Your task to perform on an android device: What's the weather going to be this weekend? Image 0: 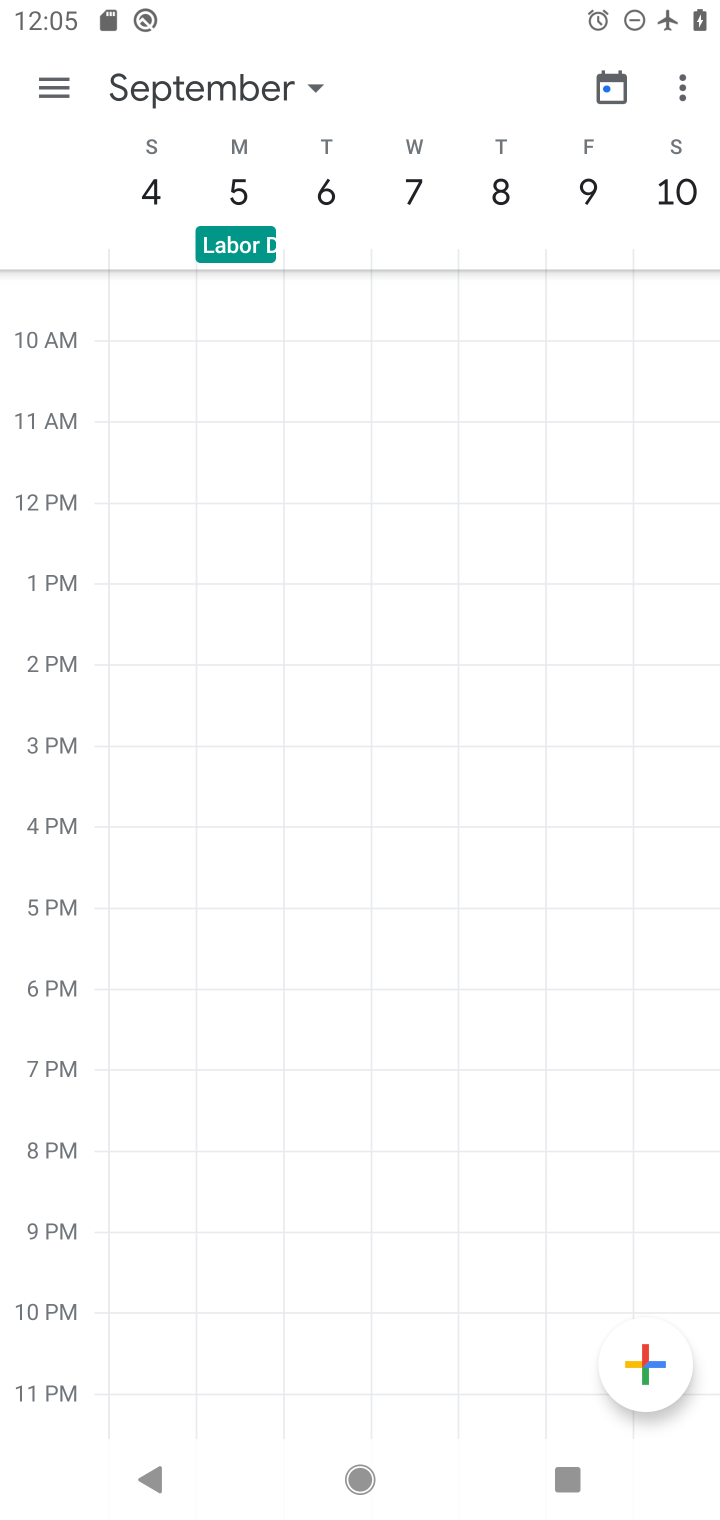
Step 0: press home button
Your task to perform on an android device: What's the weather going to be this weekend? Image 1: 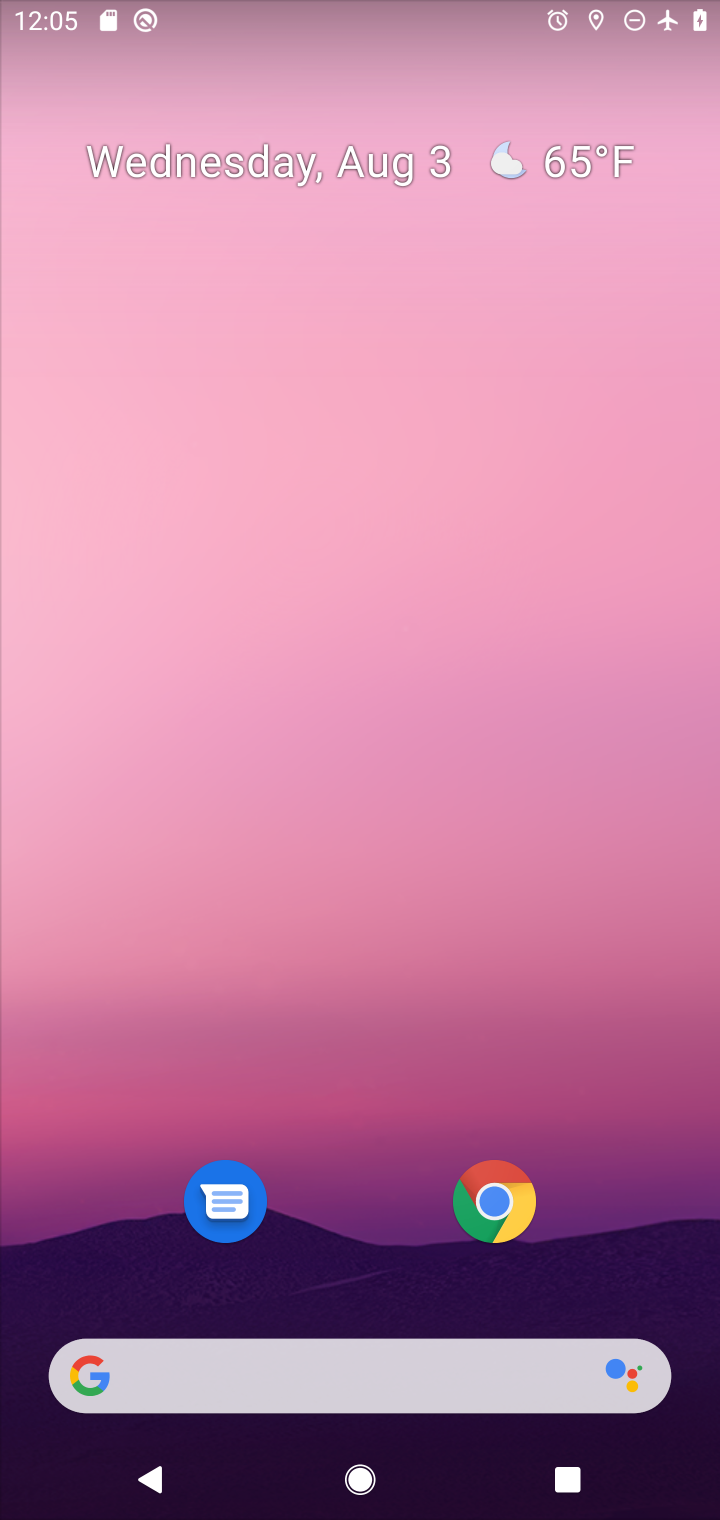
Step 1: drag from (366, 1334) to (351, 3)
Your task to perform on an android device: What's the weather going to be this weekend? Image 2: 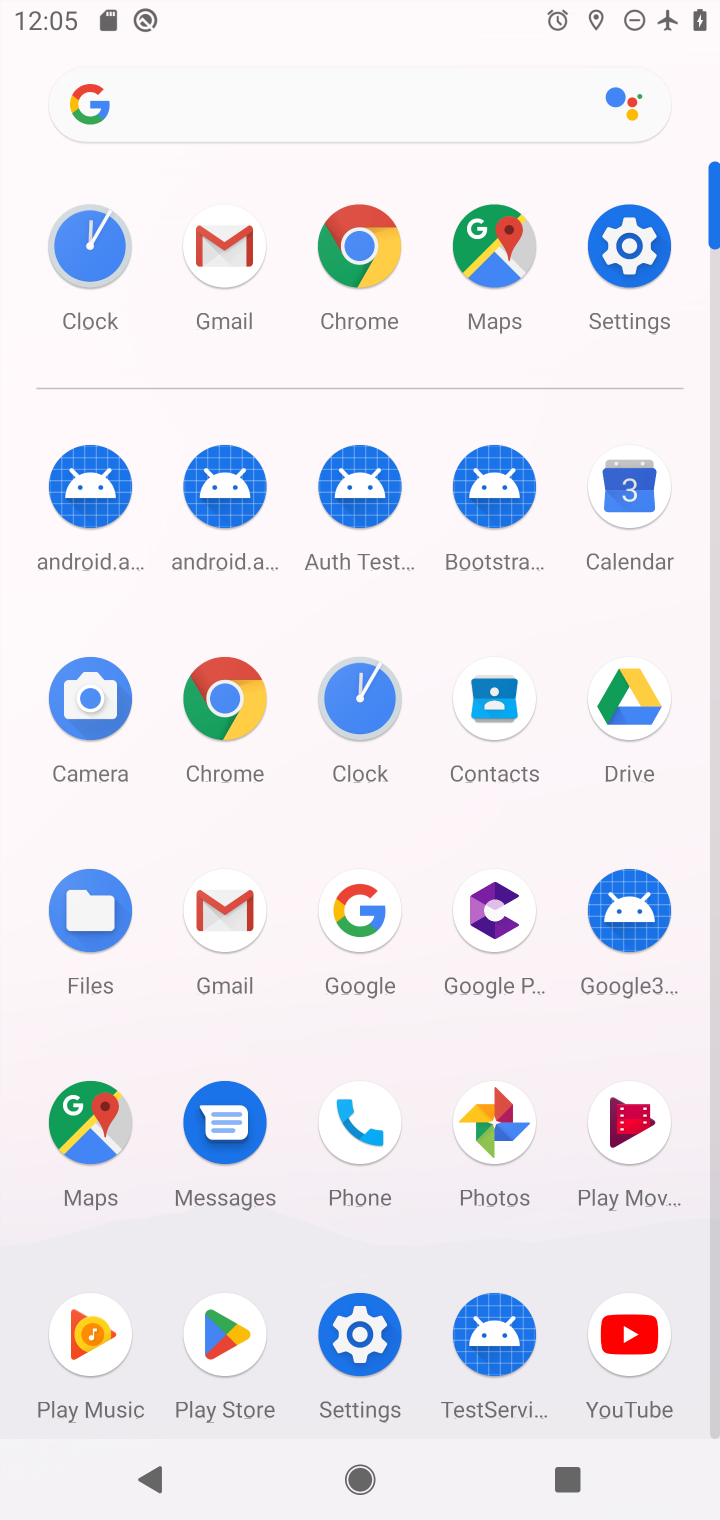
Step 2: click (340, 925)
Your task to perform on an android device: What's the weather going to be this weekend? Image 3: 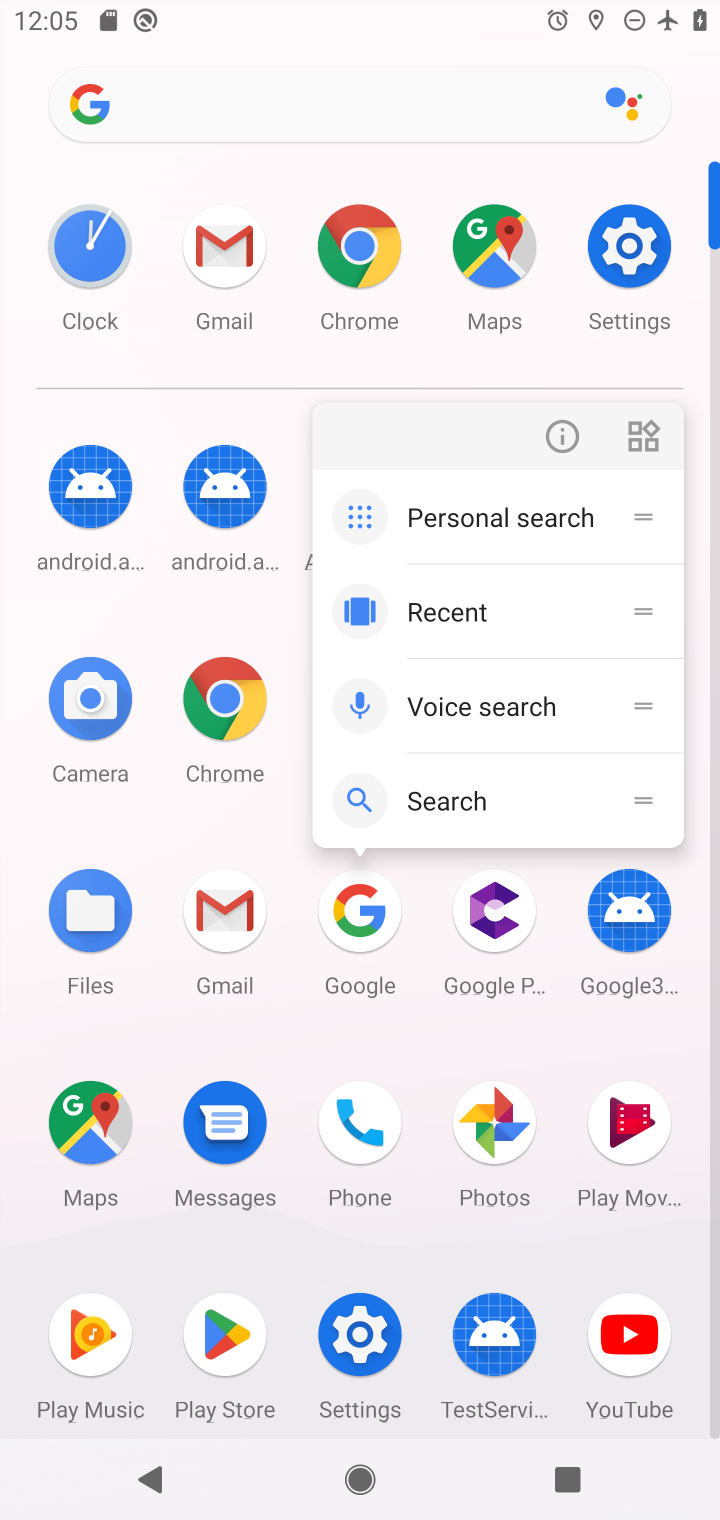
Step 3: click (342, 915)
Your task to perform on an android device: What's the weather going to be this weekend? Image 4: 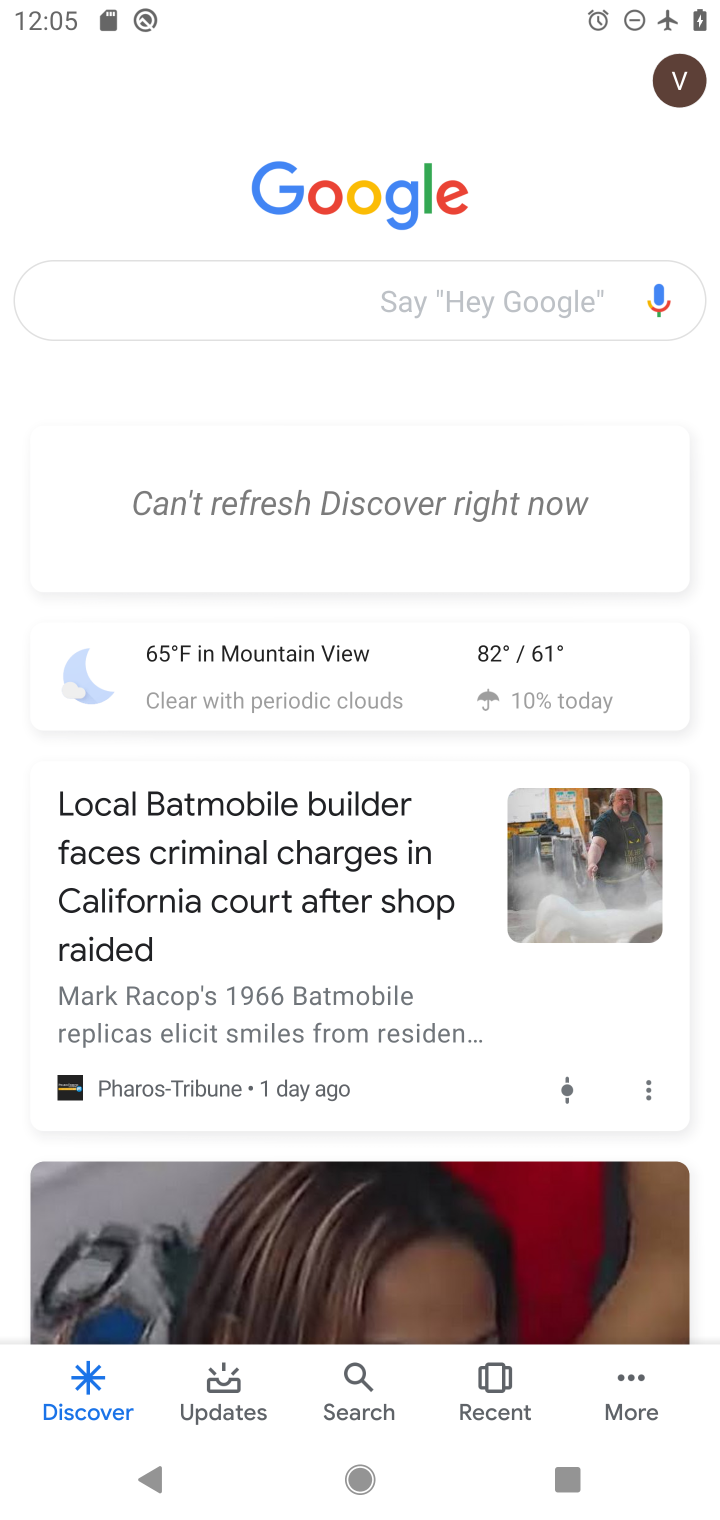
Step 4: click (244, 319)
Your task to perform on an android device: What's the weather going to be this weekend? Image 5: 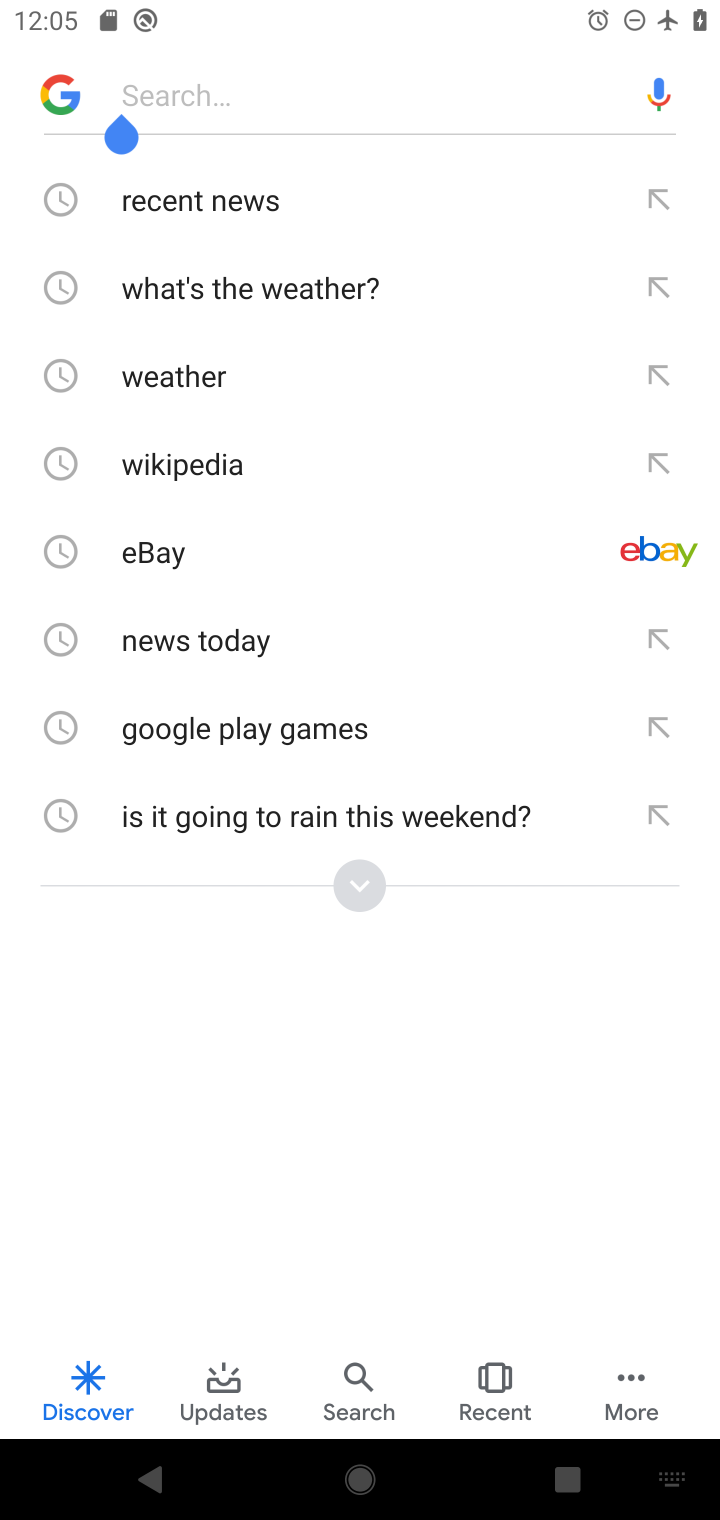
Step 5: click (175, 380)
Your task to perform on an android device: What's the weather going to be this weekend? Image 6: 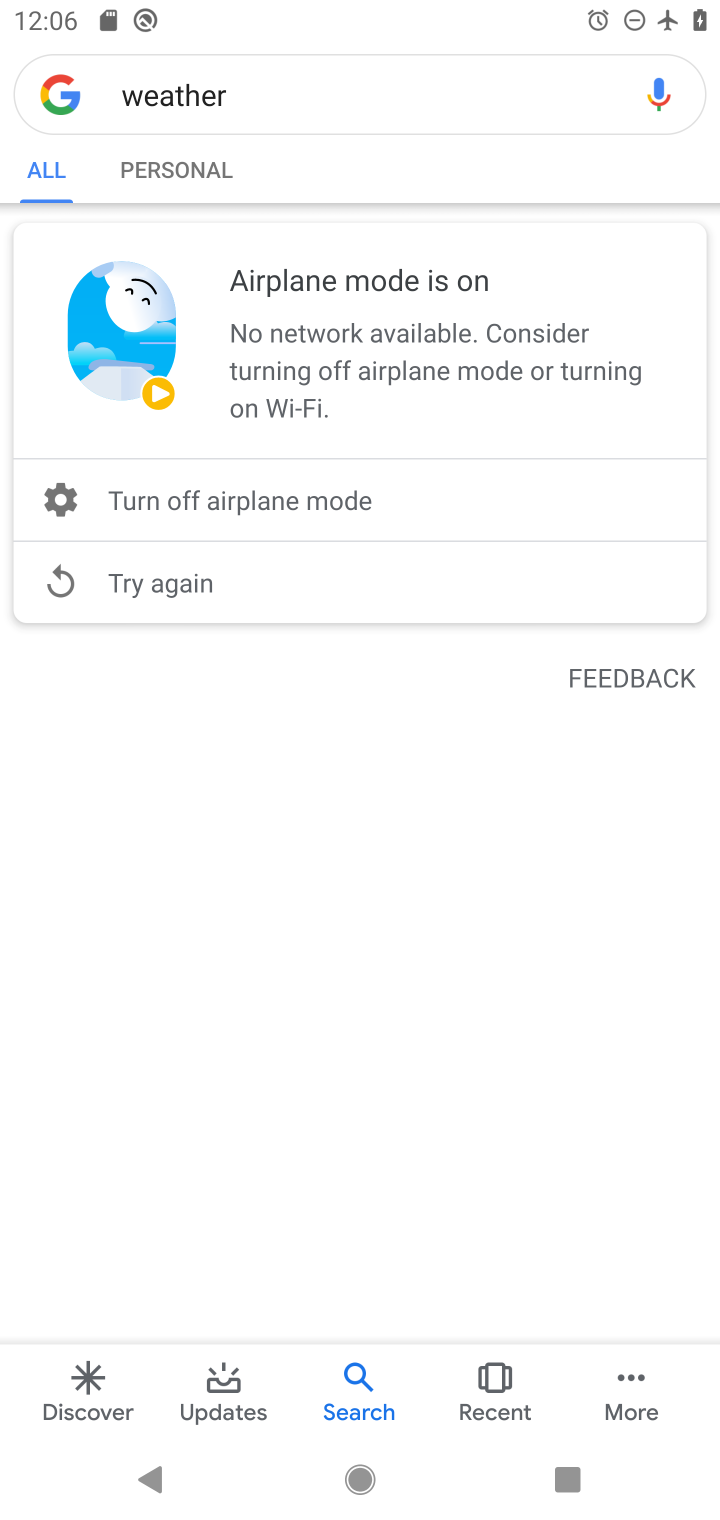
Step 6: click (186, 587)
Your task to perform on an android device: What's the weather going to be this weekend? Image 7: 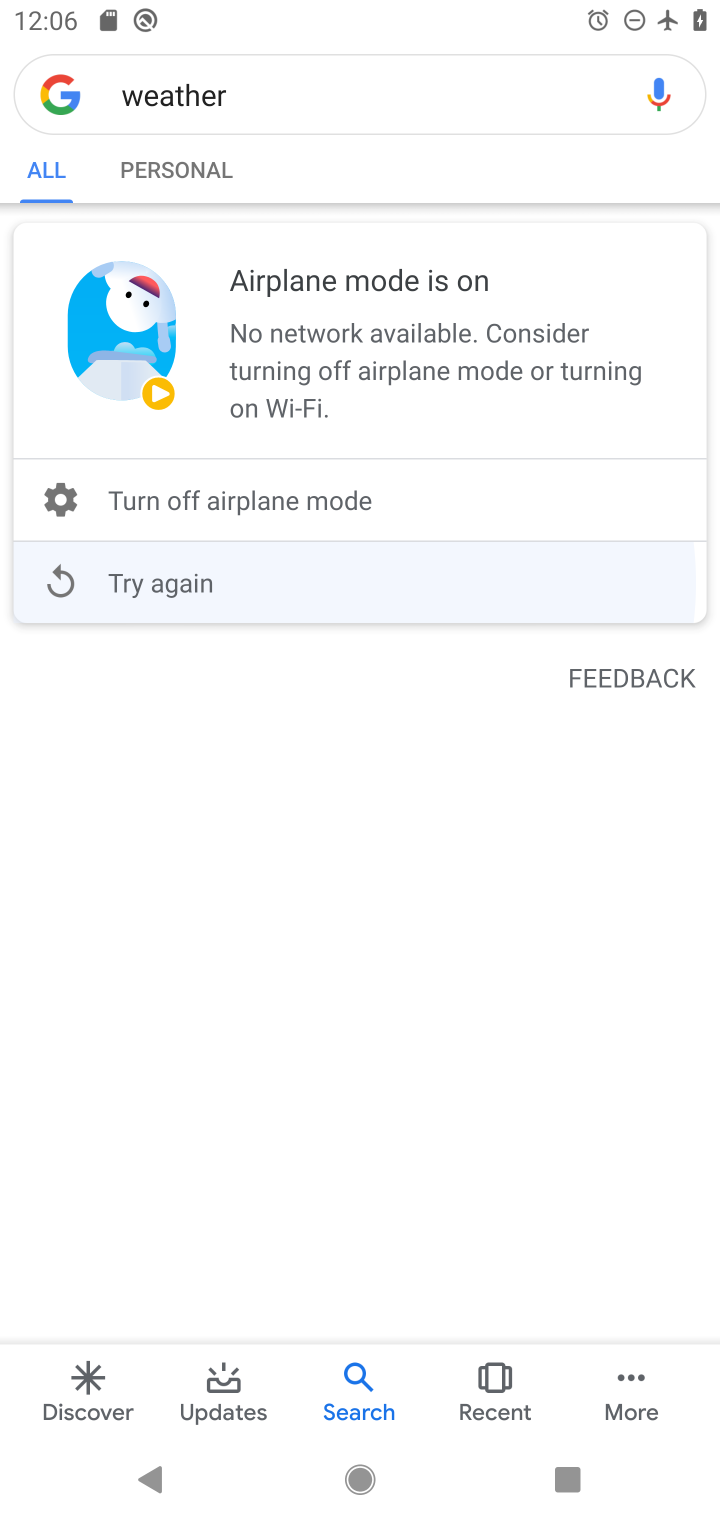
Step 7: task complete